Your task to perform on an android device: open a bookmark in the chrome app Image 0: 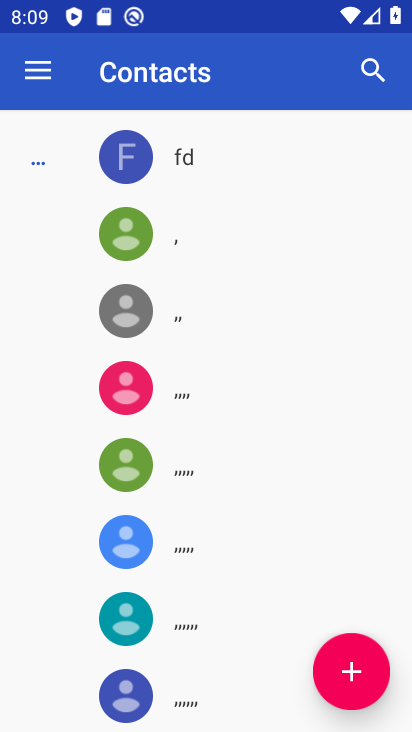
Step 0: press home button
Your task to perform on an android device: open a bookmark in the chrome app Image 1: 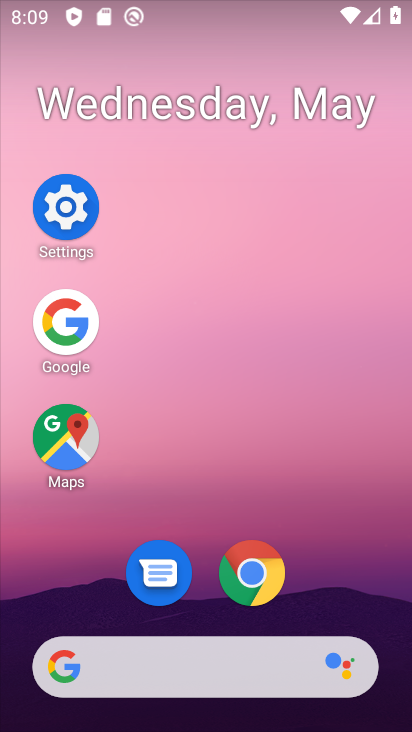
Step 1: click (236, 569)
Your task to perform on an android device: open a bookmark in the chrome app Image 2: 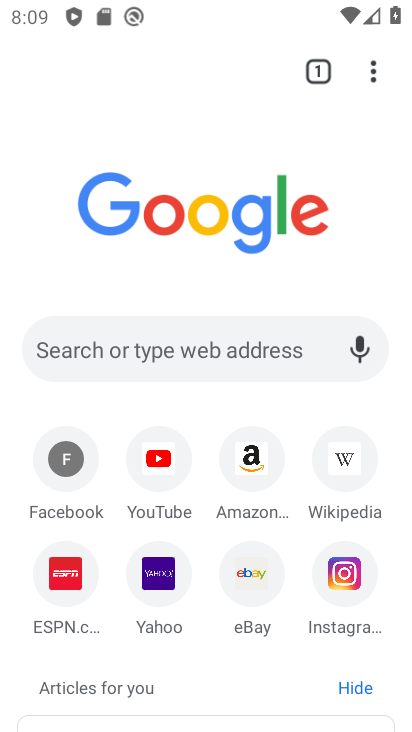
Step 2: click (387, 63)
Your task to perform on an android device: open a bookmark in the chrome app Image 3: 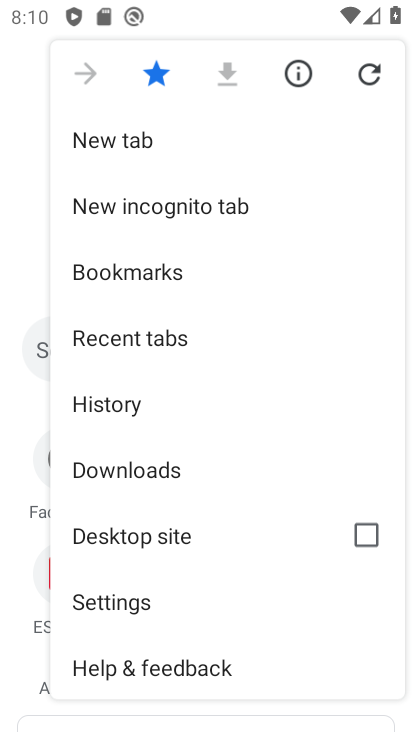
Step 3: click (159, 272)
Your task to perform on an android device: open a bookmark in the chrome app Image 4: 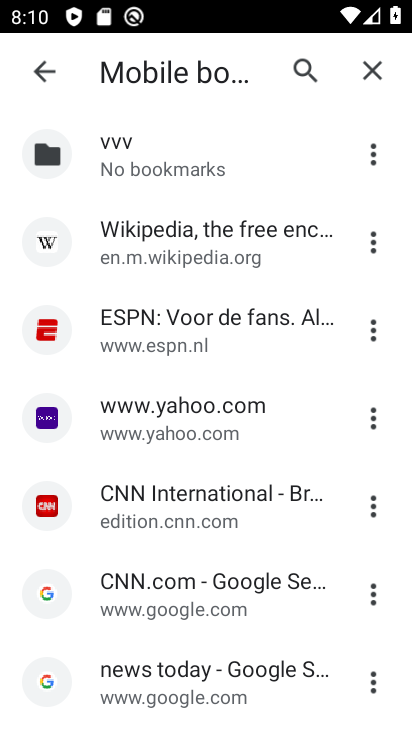
Step 4: task complete